Your task to perform on an android device: Open the Play Movies app and select the watchlist tab. Image 0: 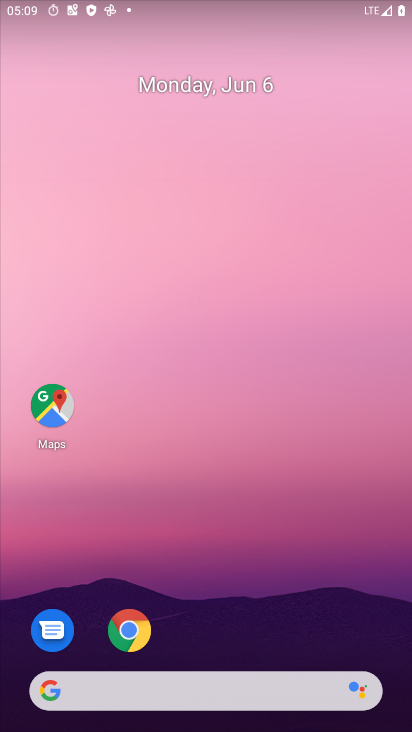
Step 0: drag from (190, 637) to (209, 91)
Your task to perform on an android device: Open the Play Movies app and select the watchlist tab. Image 1: 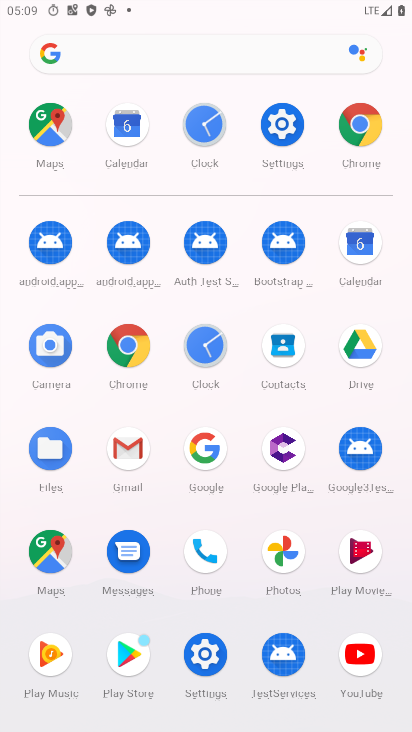
Step 1: click (355, 539)
Your task to perform on an android device: Open the Play Movies app and select the watchlist tab. Image 2: 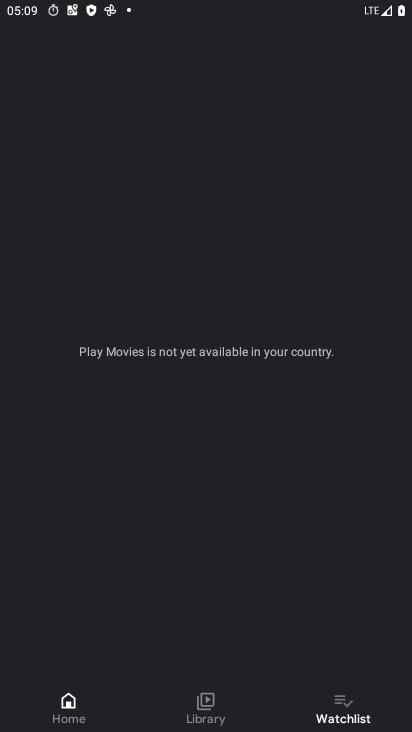
Step 2: click (350, 710)
Your task to perform on an android device: Open the Play Movies app and select the watchlist tab. Image 3: 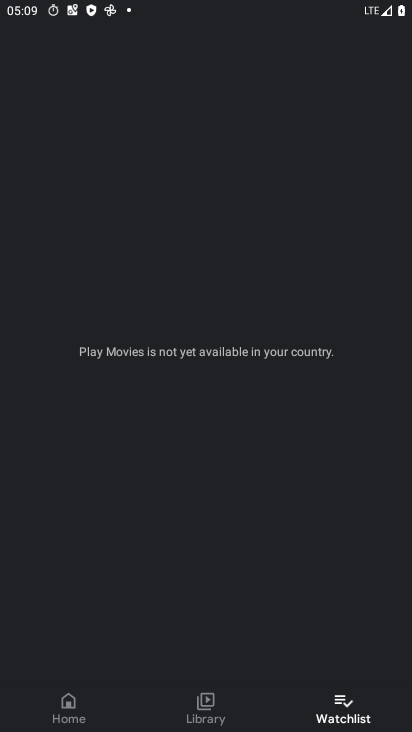
Step 3: task complete